Your task to perform on an android device: toggle improve location accuracy Image 0: 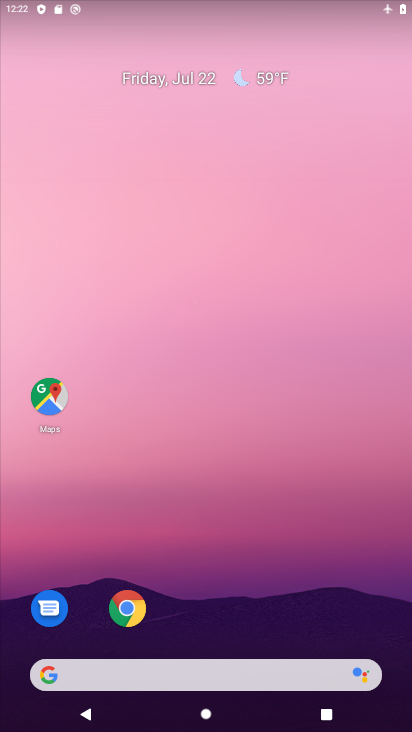
Step 0: click (290, 164)
Your task to perform on an android device: toggle improve location accuracy Image 1: 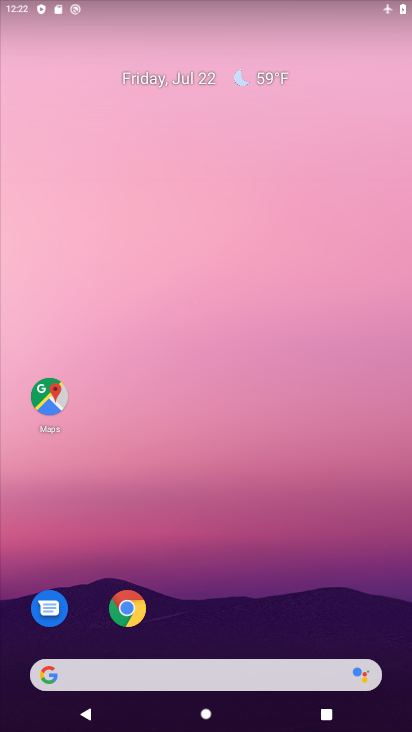
Step 1: drag from (225, 623) to (276, 53)
Your task to perform on an android device: toggle improve location accuracy Image 2: 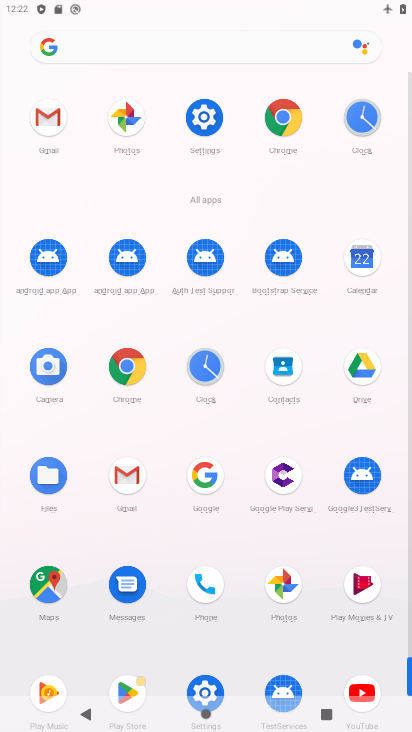
Step 2: click (207, 683)
Your task to perform on an android device: toggle improve location accuracy Image 3: 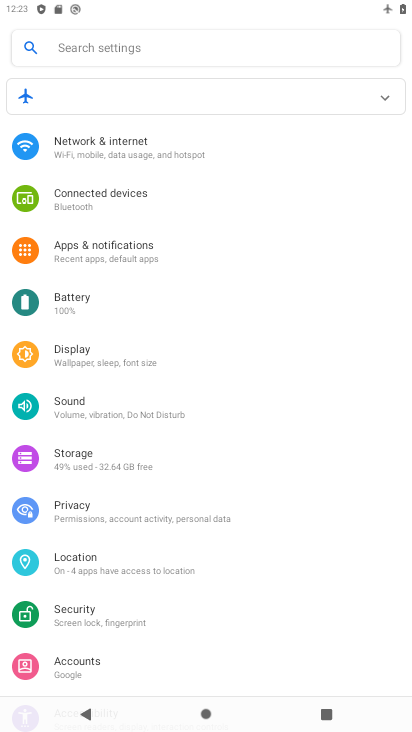
Step 3: click (91, 572)
Your task to perform on an android device: toggle improve location accuracy Image 4: 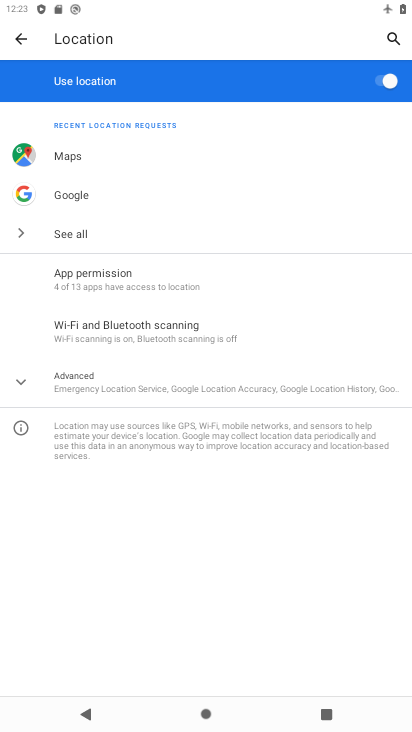
Step 4: click (139, 395)
Your task to perform on an android device: toggle improve location accuracy Image 5: 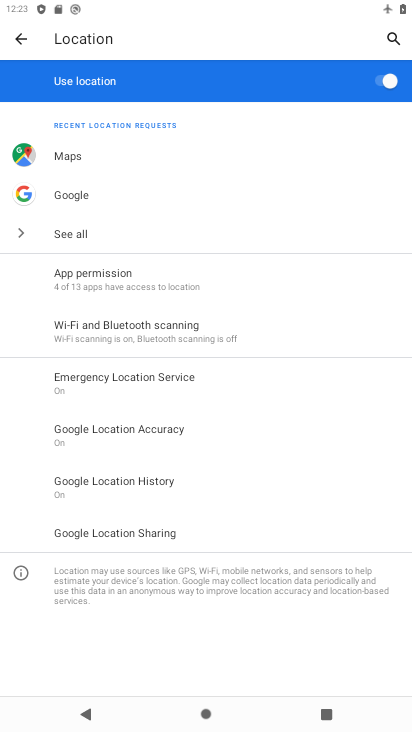
Step 5: click (160, 436)
Your task to perform on an android device: toggle improve location accuracy Image 6: 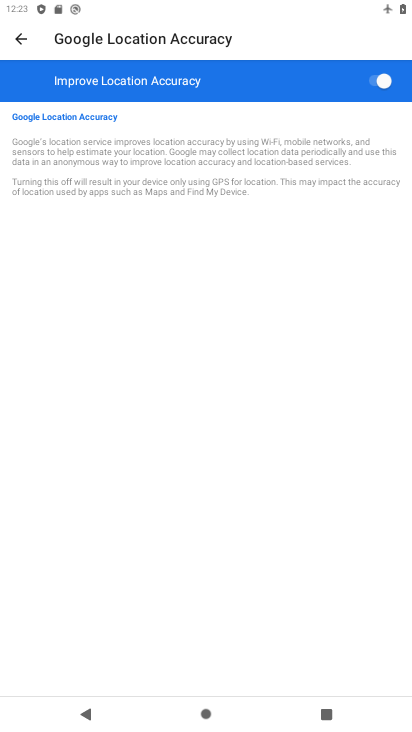
Step 6: click (358, 86)
Your task to perform on an android device: toggle improve location accuracy Image 7: 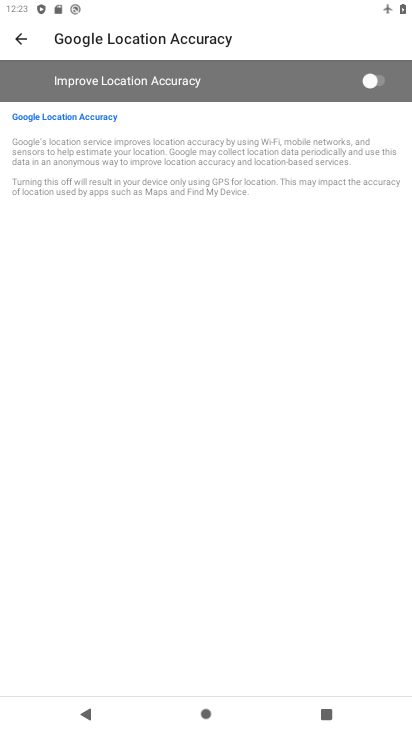
Step 7: task complete